Your task to perform on an android device: turn off location Image 0: 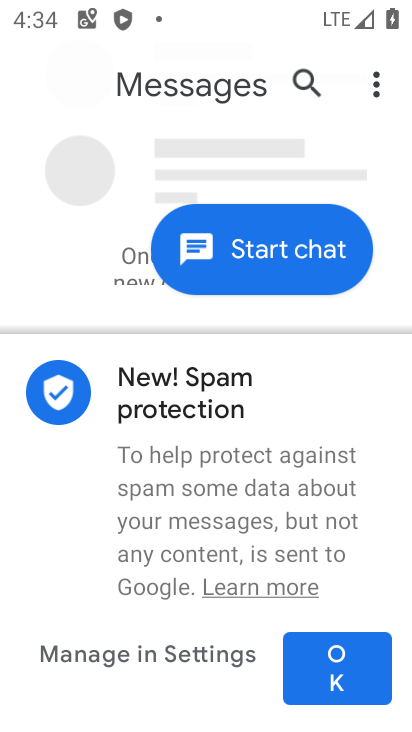
Step 0: press home button
Your task to perform on an android device: turn off location Image 1: 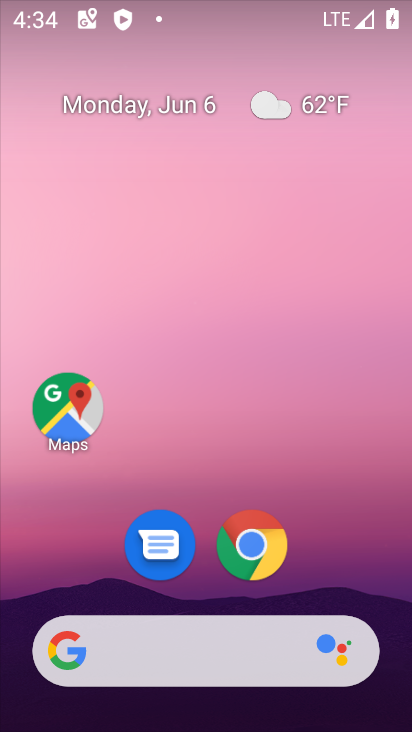
Step 1: drag from (225, 718) to (199, 107)
Your task to perform on an android device: turn off location Image 2: 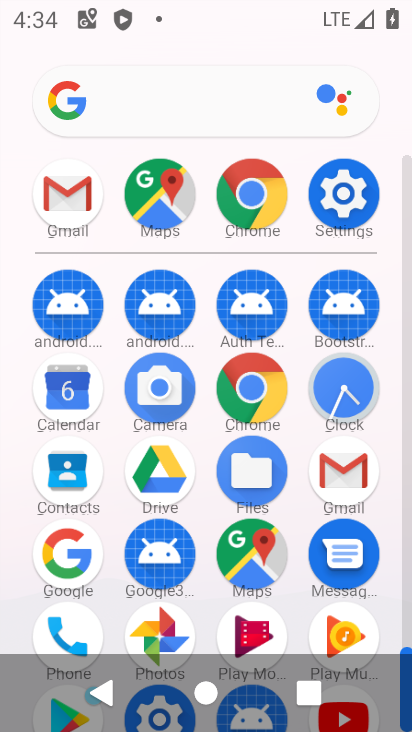
Step 2: click (349, 190)
Your task to perform on an android device: turn off location Image 3: 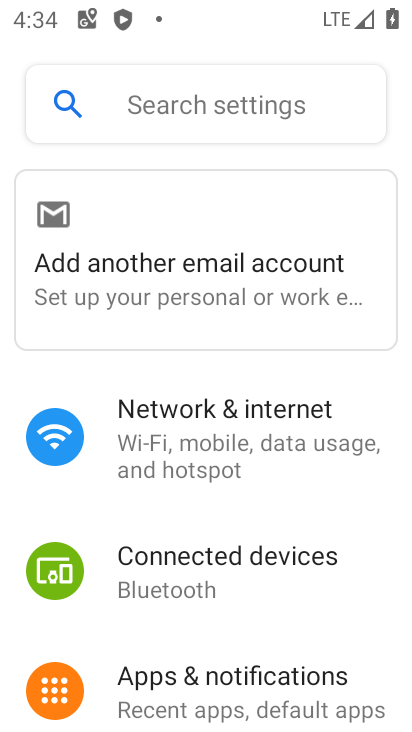
Step 3: drag from (205, 705) to (202, 284)
Your task to perform on an android device: turn off location Image 4: 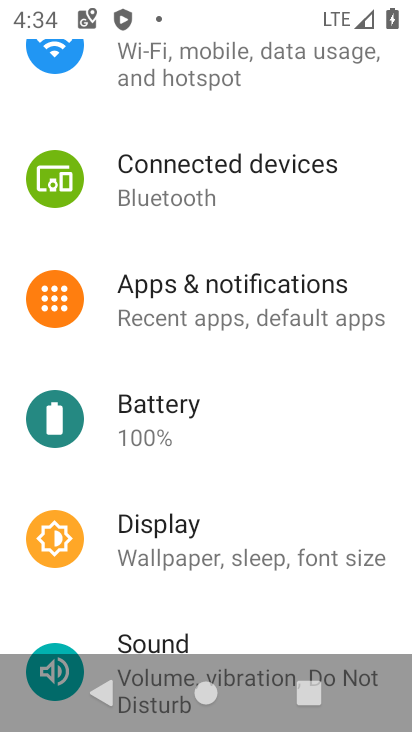
Step 4: drag from (222, 622) to (192, 197)
Your task to perform on an android device: turn off location Image 5: 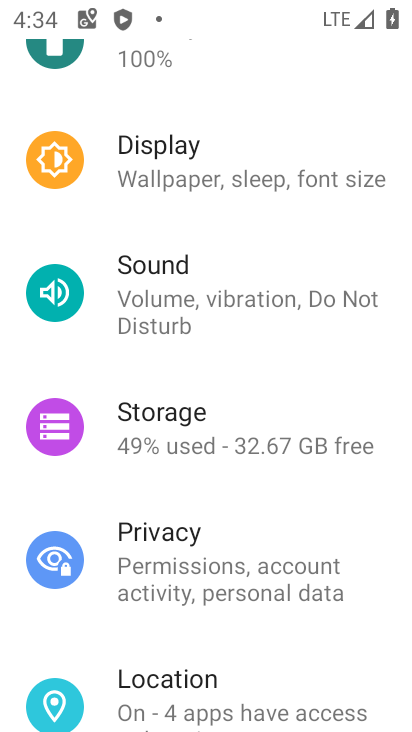
Step 5: click (199, 692)
Your task to perform on an android device: turn off location Image 6: 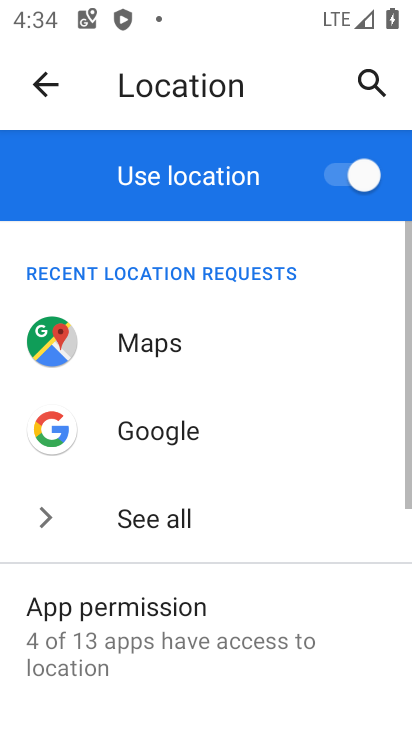
Step 6: drag from (143, 706) to (128, 333)
Your task to perform on an android device: turn off location Image 7: 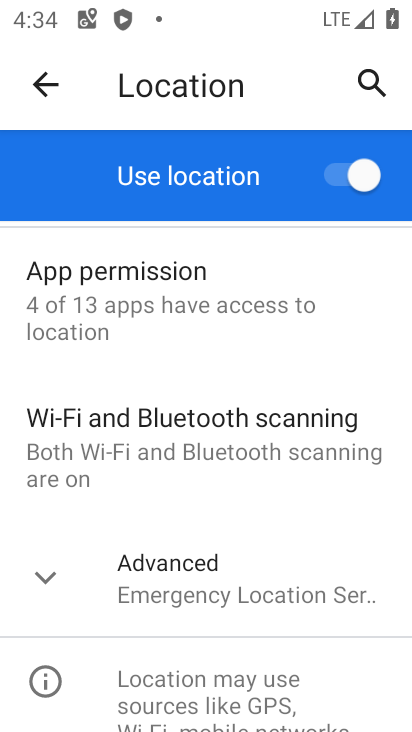
Step 7: drag from (262, 695) to (233, 279)
Your task to perform on an android device: turn off location Image 8: 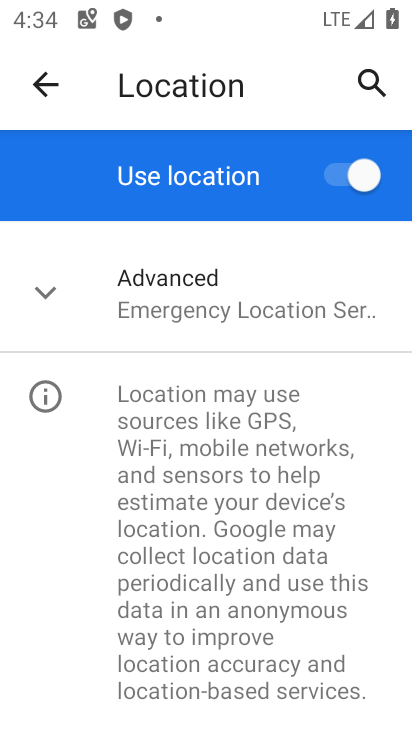
Step 8: click (345, 175)
Your task to perform on an android device: turn off location Image 9: 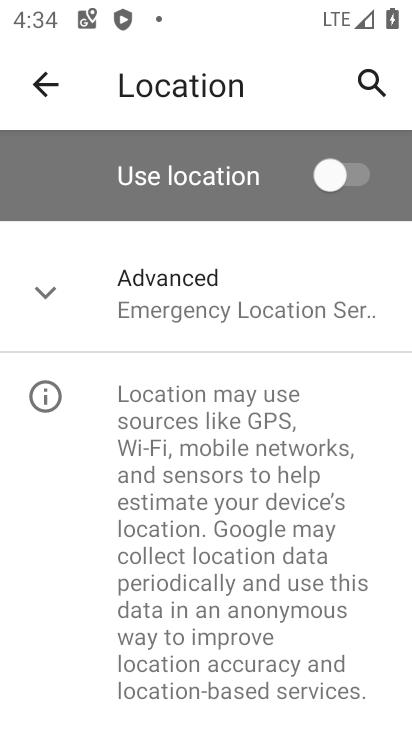
Step 9: task complete